Your task to perform on an android device: change your default location settings in chrome Image 0: 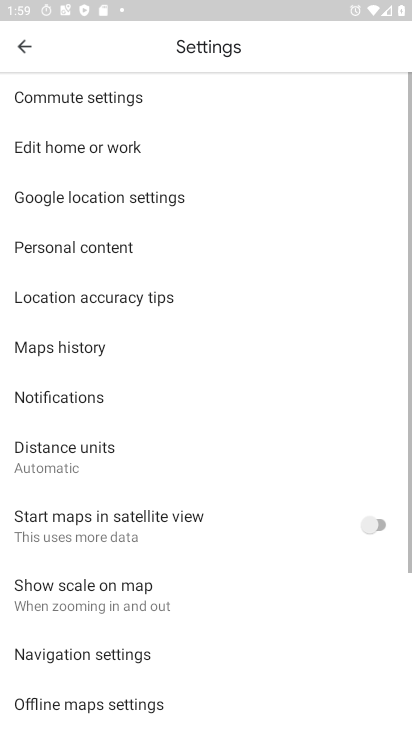
Step 0: press home button
Your task to perform on an android device: change your default location settings in chrome Image 1: 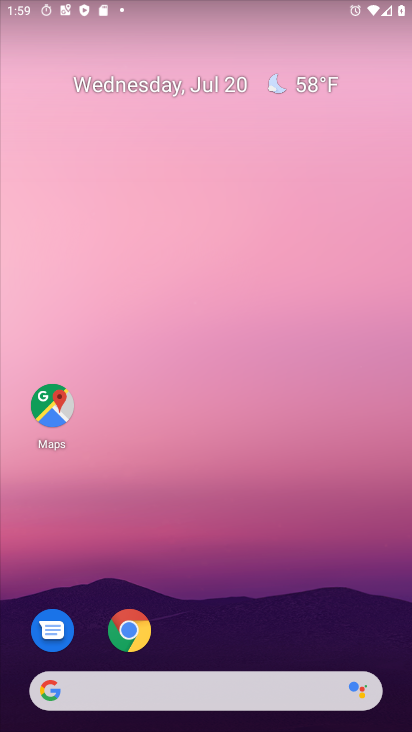
Step 1: click (126, 634)
Your task to perform on an android device: change your default location settings in chrome Image 2: 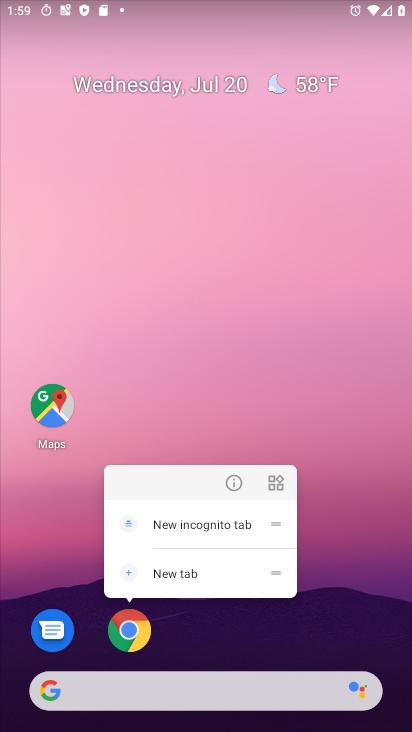
Step 2: click (128, 631)
Your task to perform on an android device: change your default location settings in chrome Image 3: 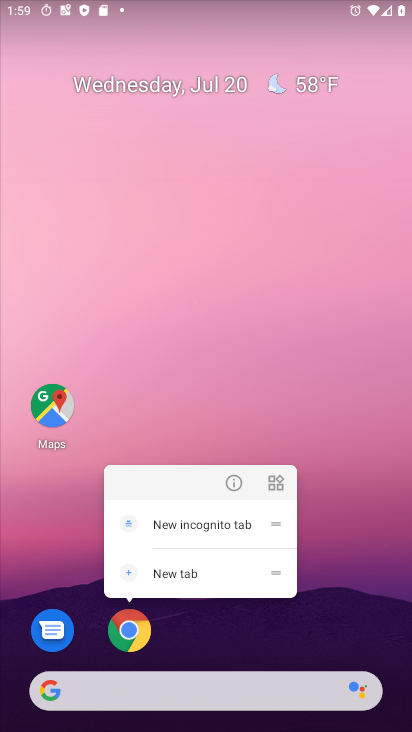
Step 3: click (127, 634)
Your task to perform on an android device: change your default location settings in chrome Image 4: 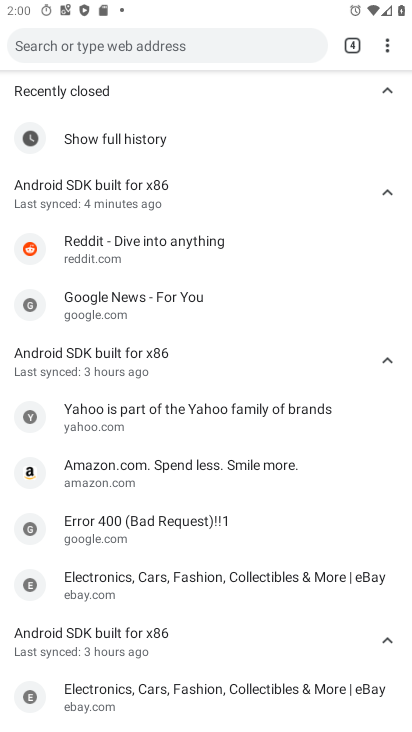
Step 4: drag from (385, 49) to (273, 386)
Your task to perform on an android device: change your default location settings in chrome Image 5: 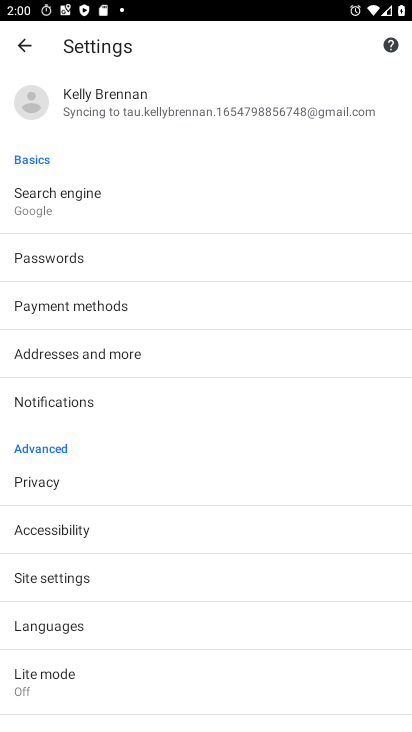
Step 5: click (101, 580)
Your task to perform on an android device: change your default location settings in chrome Image 6: 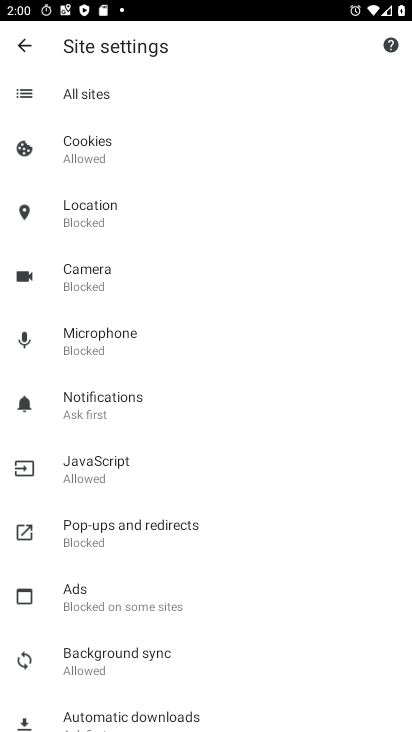
Step 6: click (94, 214)
Your task to perform on an android device: change your default location settings in chrome Image 7: 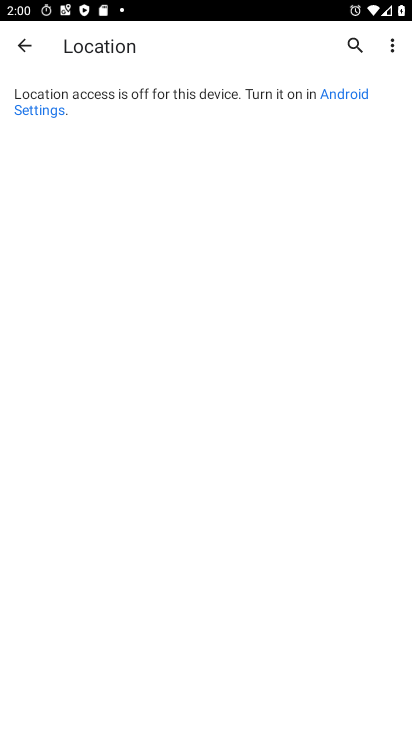
Step 7: task complete